Your task to perform on an android device: Open the calendar and show me this week's events Image 0: 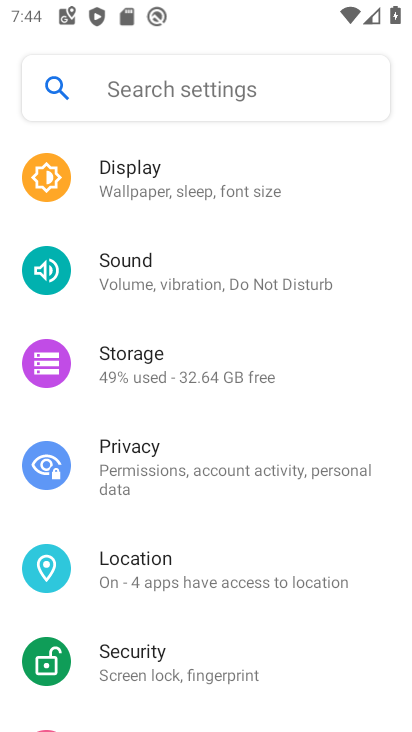
Step 0: press home button
Your task to perform on an android device: Open the calendar and show me this week's events Image 1: 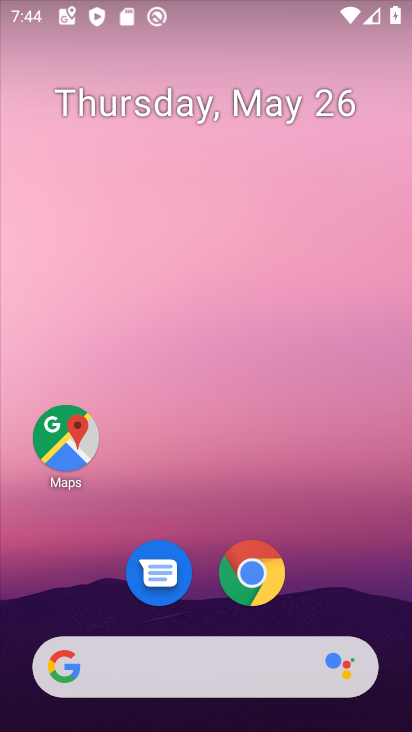
Step 1: drag from (346, 600) to (351, 0)
Your task to perform on an android device: Open the calendar and show me this week's events Image 2: 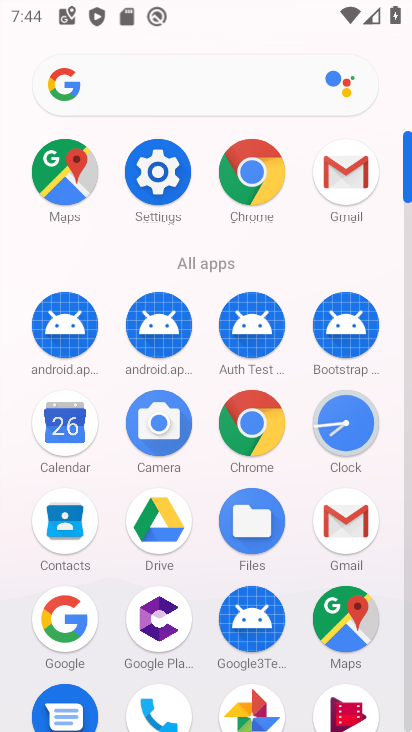
Step 2: click (75, 409)
Your task to perform on an android device: Open the calendar and show me this week's events Image 3: 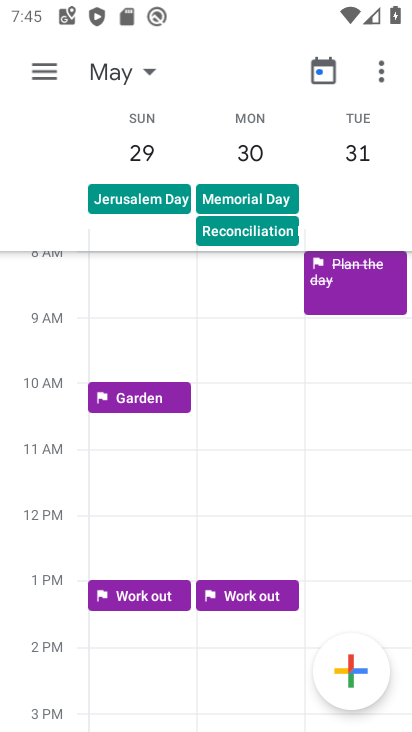
Step 3: click (43, 52)
Your task to perform on an android device: Open the calendar and show me this week's events Image 4: 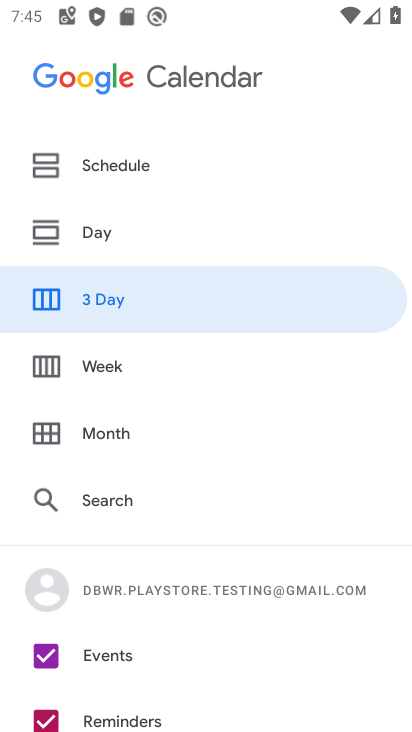
Step 4: click (111, 364)
Your task to perform on an android device: Open the calendar and show me this week's events Image 5: 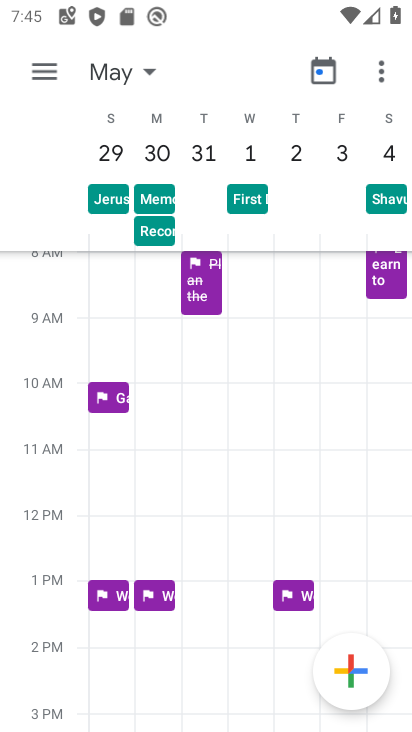
Step 5: click (139, 71)
Your task to perform on an android device: Open the calendar and show me this week's events Image 6: 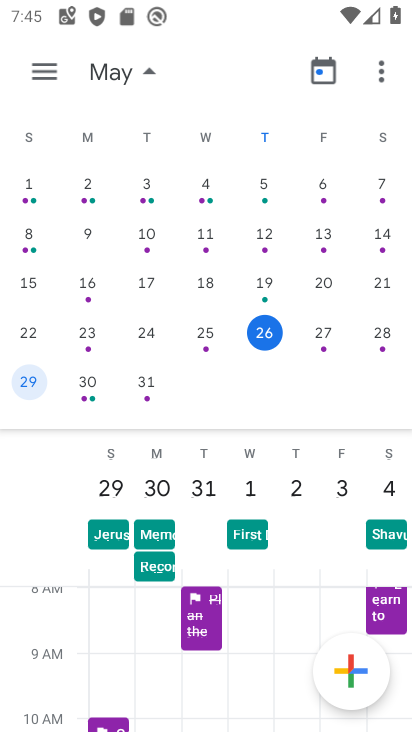
Step 6: click (268, 324)
Your task to perform on an android device: Open the calendar and show me this week's events Image 7: 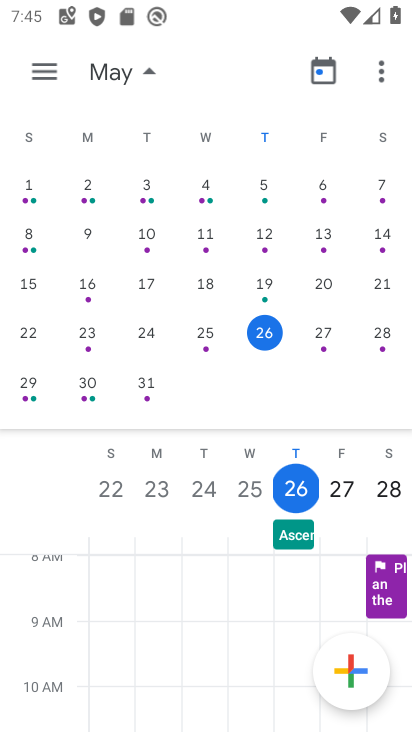
Step 7: task complete